Your task to perform on an android device: Open ESPN.com Image 0: 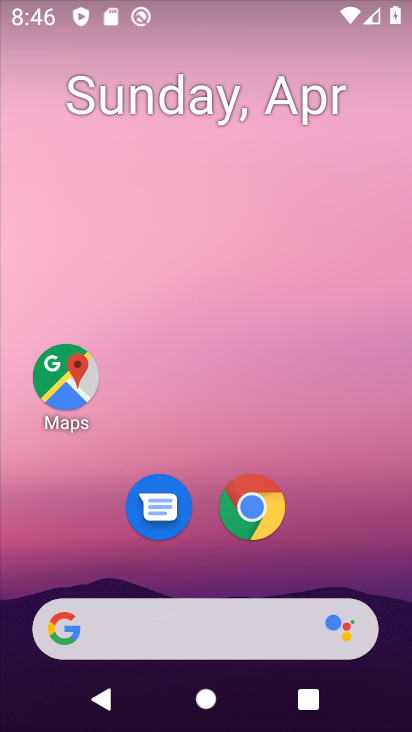
Step 0: drag from (234, 664) to (215, 203)
Your task to perform on an android device: Open ESPN.com Image 1: 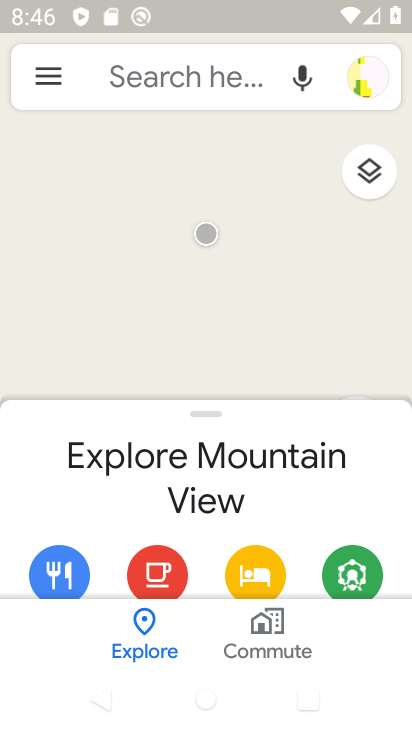
Step 1: press home button
Your task to perform on an android device: Open ESPN.com Image 2: 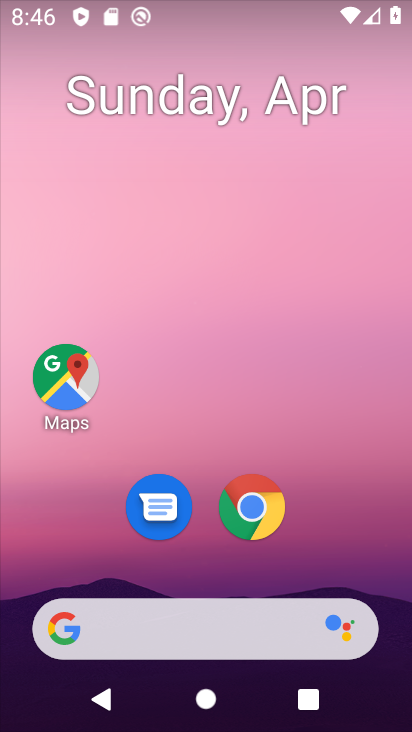
Step 2: click (267, 521)
Your task to perform on an android device: Open ESPN.com Image 3: 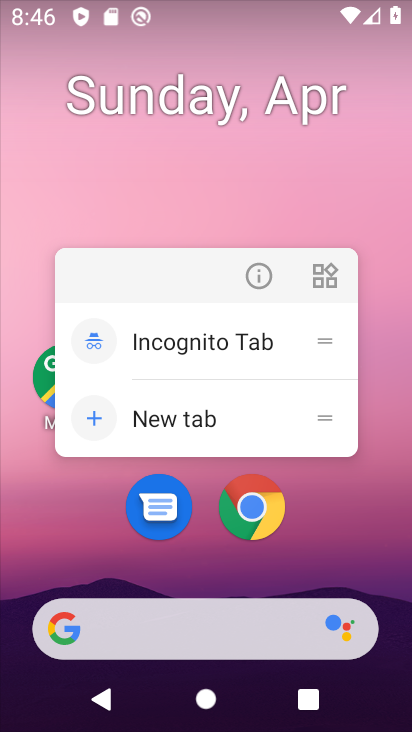
Step 3: click (253, 520)
Your task to perform on an android device: Open ESPN.com Image 4: 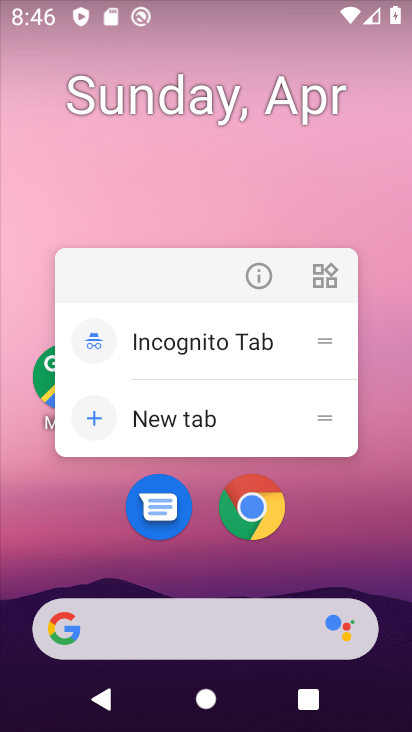
Step 4: click (245, 520)
Your task to perform on an android device: Open ESPN.com Image 5: 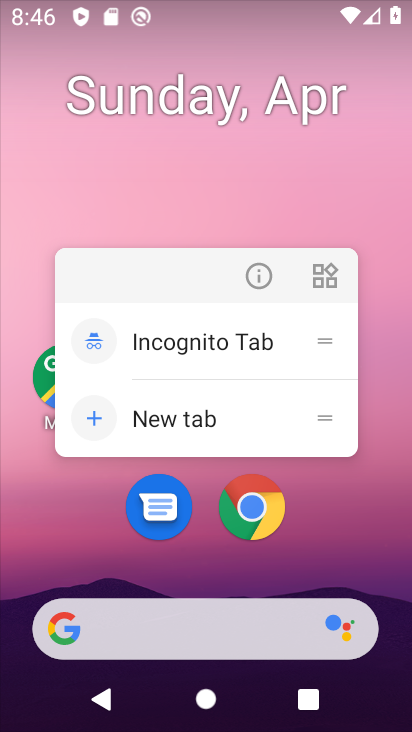
Step 5: click (247, 515)
Your task to perform on an android device: Open ESPN.com Image 6: 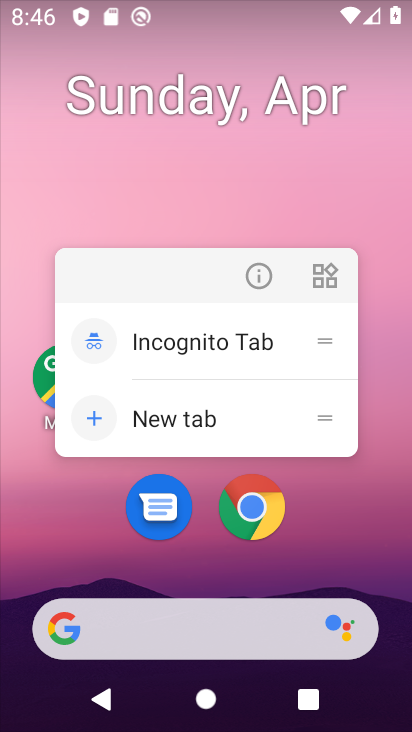
Step 6: click (261, 529)
Your task to perform on an android device: Open ESPN.com Image 7: 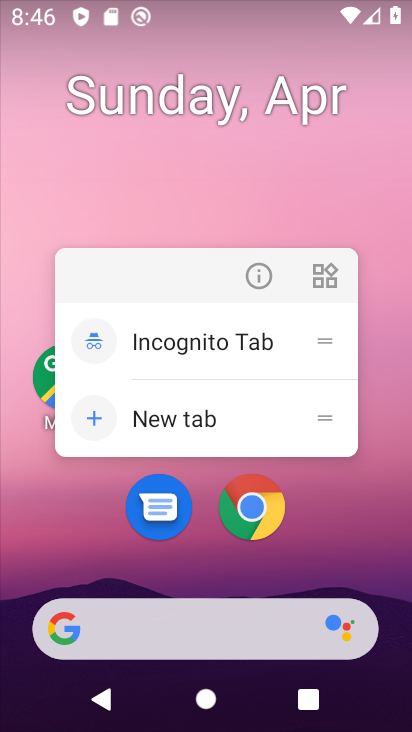
Step 7: click (259, 511)
Your task to perform on an android device: Open ESPN.com Image 8: 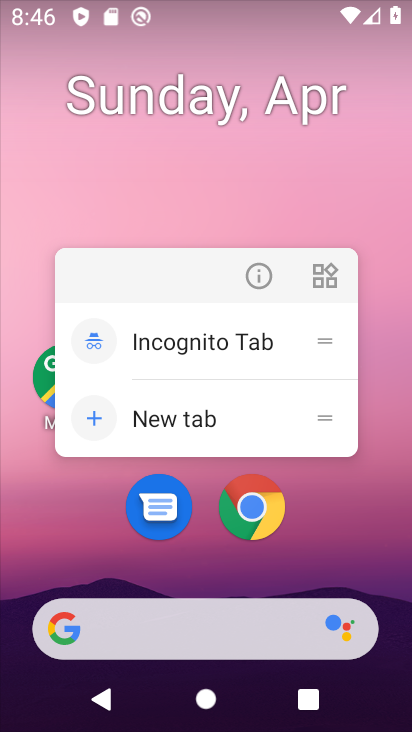
Step 8: click (273, 526)
Your task to perform on an android device: Open ESPN.com Image 9: 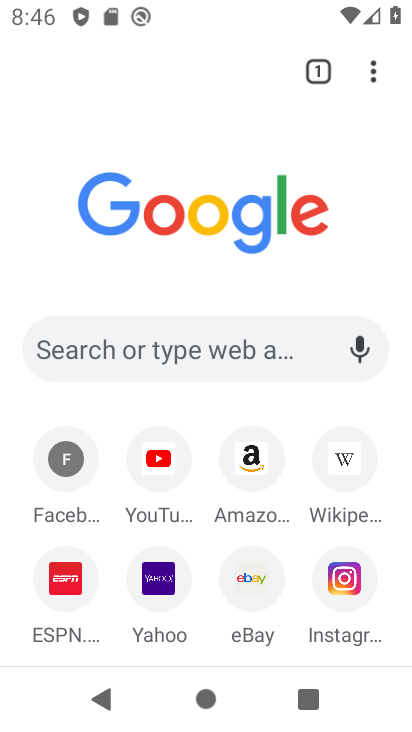
Step 9: click (52, 591)
Your task to perform on an android device: Open ESPN.com Image 10: 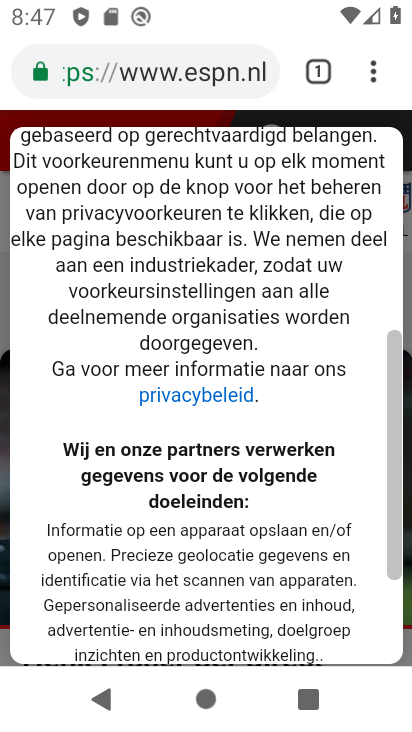
Step 10: click (248, 67)
Your task to perform on an android device: Open ESPN.com Image 11: 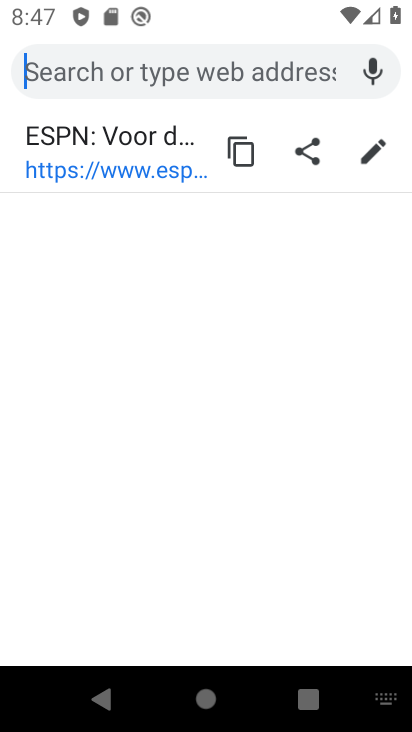
Step 11: task complete